Your task to perform on an android device: turn off improve location accuracy Image 0: 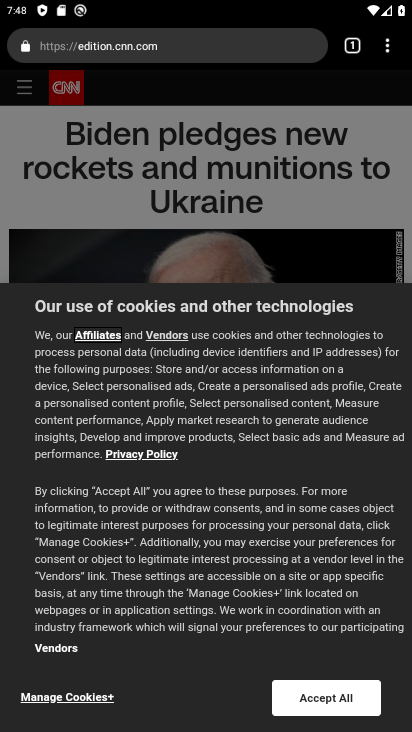
Step 0: press home button
Your task to perform on an android device: turn off improve location accuracy Image 1: 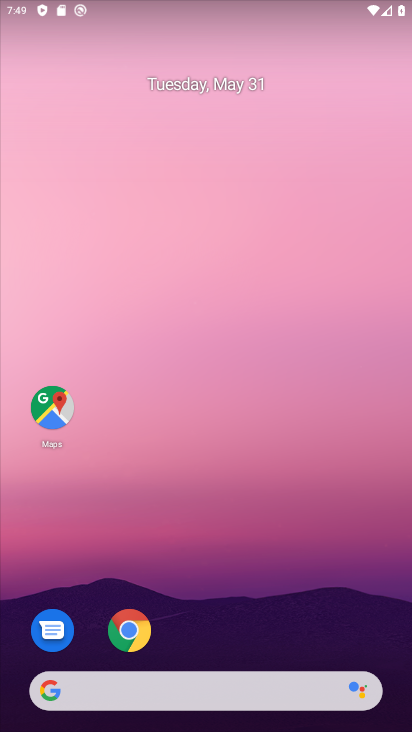
Step 1: drag from (246, 644) to (271, 119)
Your task to perform on an android device: turn off improve location accuracy Image 2: 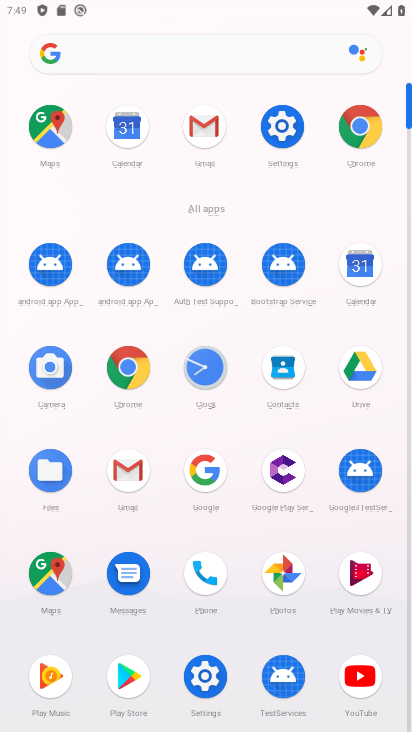
Step 2: click (284, 140)
Your task to perform on an android device: turn off improve location accuracy Image 3: 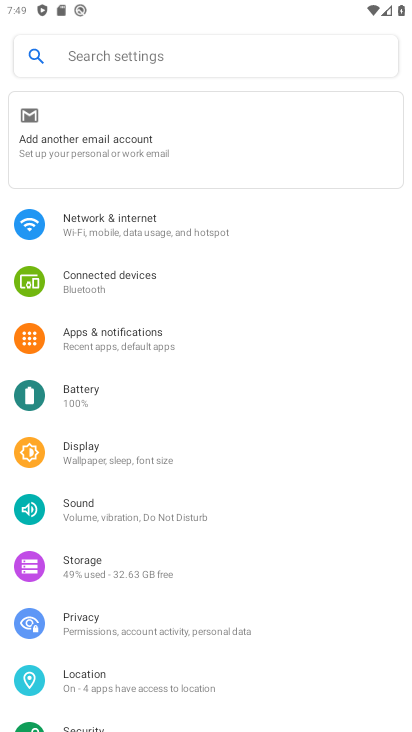
Step 3: click (92, 676)
Your task to perform on an android device: turn off improve location accuracy Image 4: 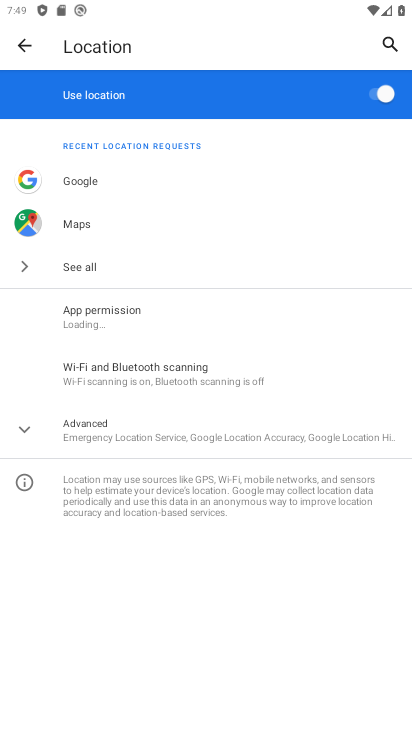
Step 4: click (79, 438)
Your task to perform on an android device: turn off improve location accuracy Image 5: 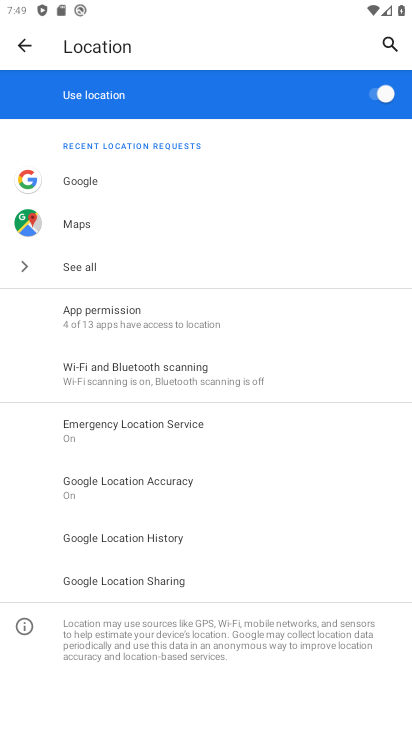
Step 5: click (121, 486)
Your task to perform on an android device: turn off improve location accuracy Image 6: 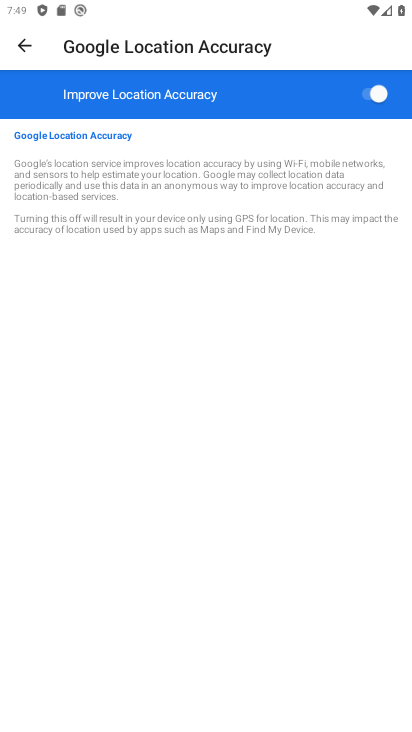
Step 6: click (387, 98)
Your task to perform on an android device: turn off improve location accuracy Image 7: 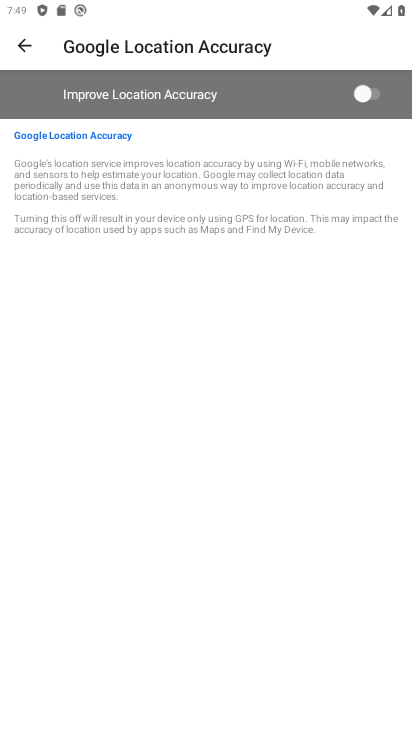
Step 7: task complete